Your task to perform on an android device: check google app version Image 0: 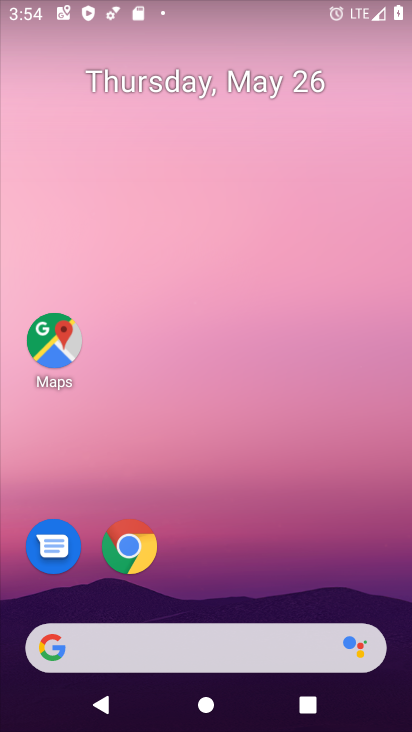
Step 0: drag from (235, 548) to (298, 157)
Your task to perform on an android device: check google app version Image 1: 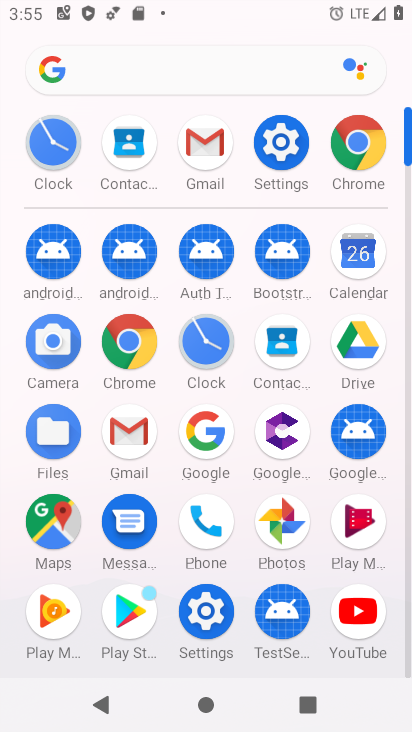
Step 1: click (208, 435)
Your task to perform on an android device: check google app version Image 2: 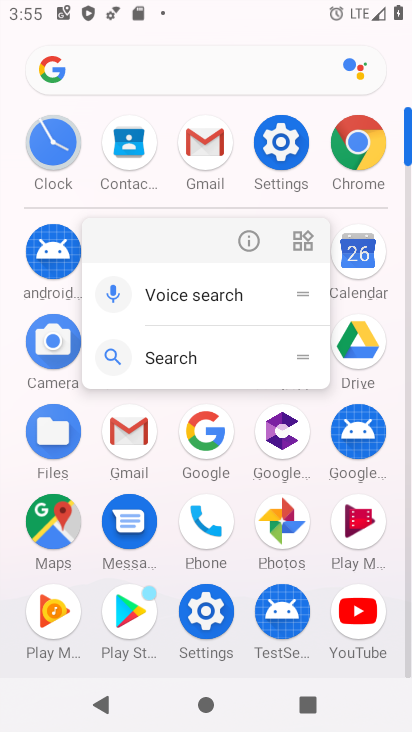
Step 2: click (248, 225)
Your task to perform on an android device: check google app version Image 3: 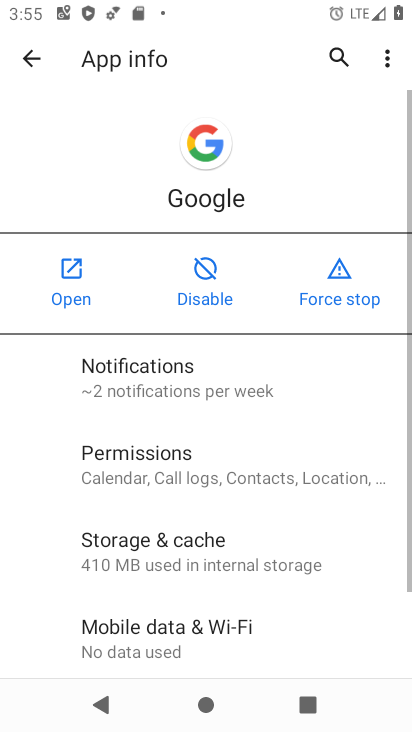
Step 3: drag from (136, 612) to (167, 145)
Your task to perform on an android device: check google app version Image 4: 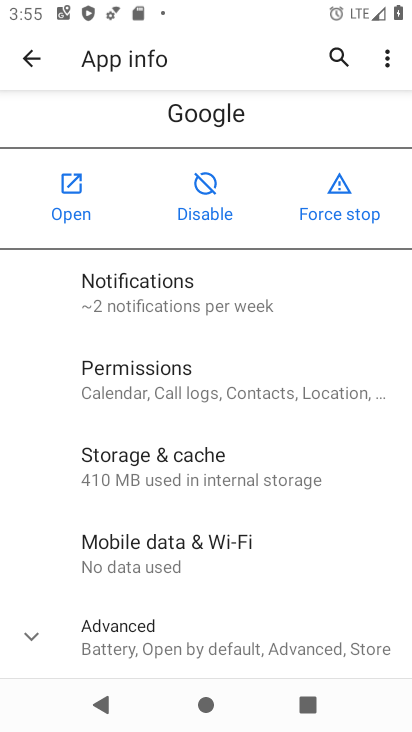
Step 4: click (152, 625)
Your task to perform on an android device: check google app version Image 5: 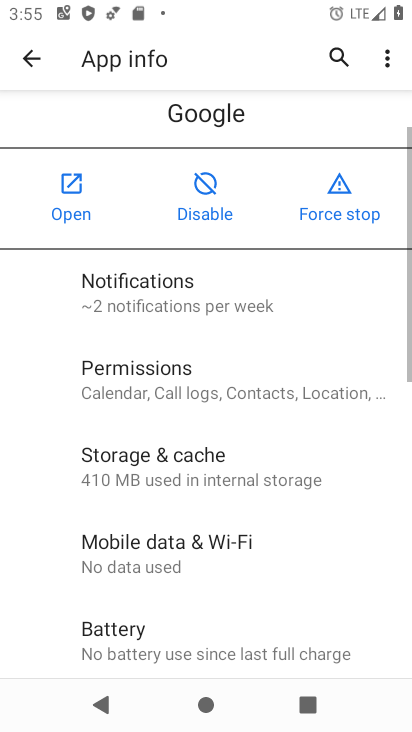
Step 5: task complete